Your task to perform on an android device: Clear the cart on ebay. Add "logitech g903" to the cart on ebay Image 0: 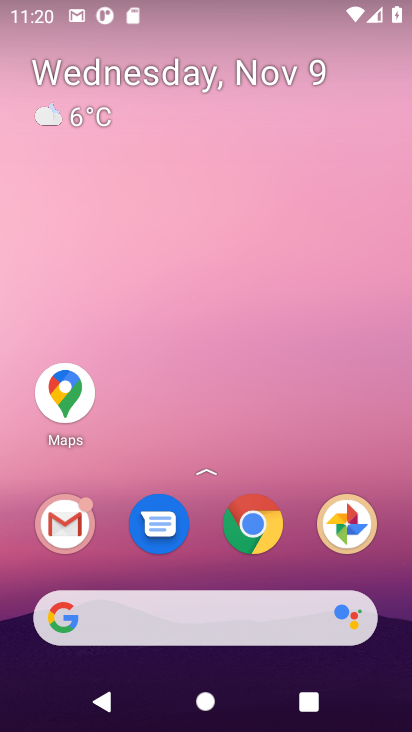
Step 0: click (214, 605)
Your task to perform on an android device: Clear the cart on ebay. Add "logitech g903" to the cart on ebay Image 1: 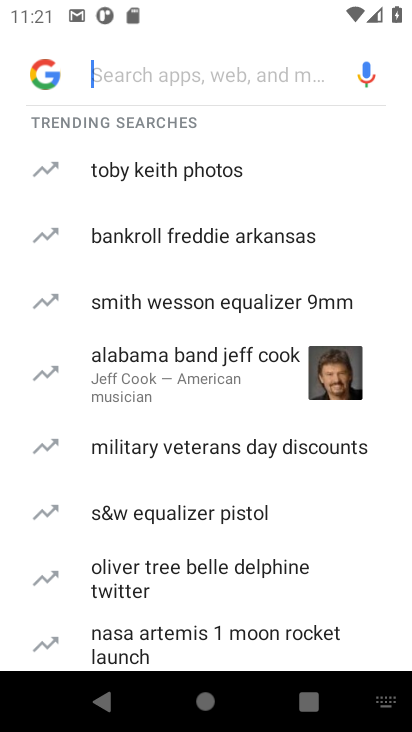
Step 1: type "logitech g903 on ebay"
Your task to perform on an android device: Clear the cart on ebay. Add "logitech g903" to the cart on ebay Image 2: 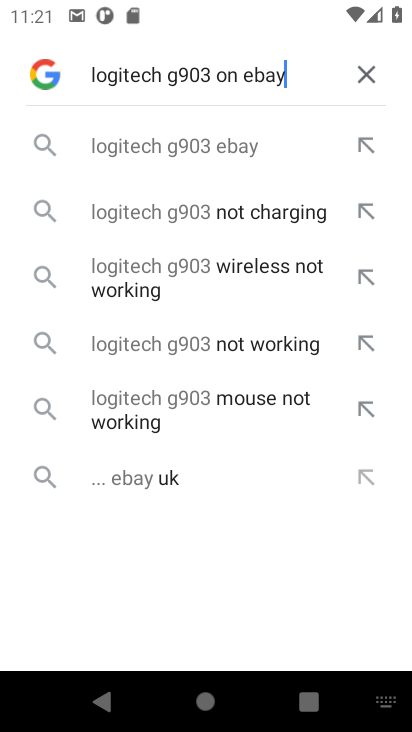
Step 2: click (201, 137)
Your task to perform on an android device: Clear the cart on ebay. Add "logitech g903" to the cart on ebay Image 3: 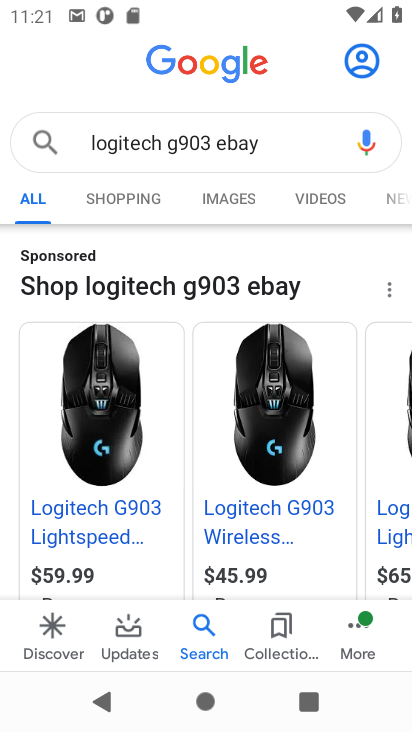
Step 3: drag from (114, 512) to (172, 311)
Your task to perform on an android device: Clear the cart on ebay. Add "logitech g903" to the cart on ebay Image 4: 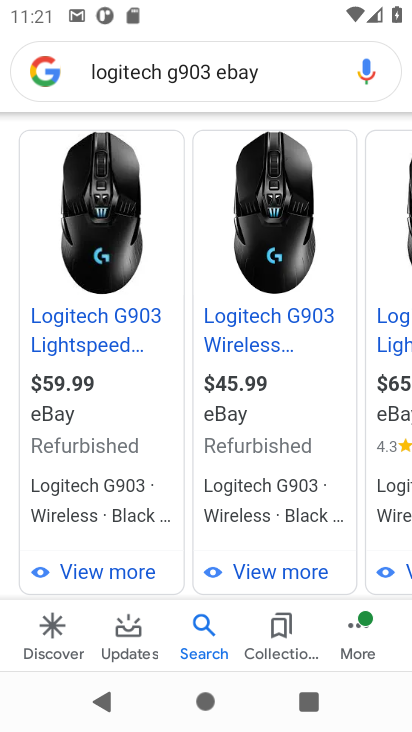
Step 4: click (100, 311)
Your task to perform on an android device: Clear the cart on ebay. Add "logitech g903" to the cart on ebay Image 5: 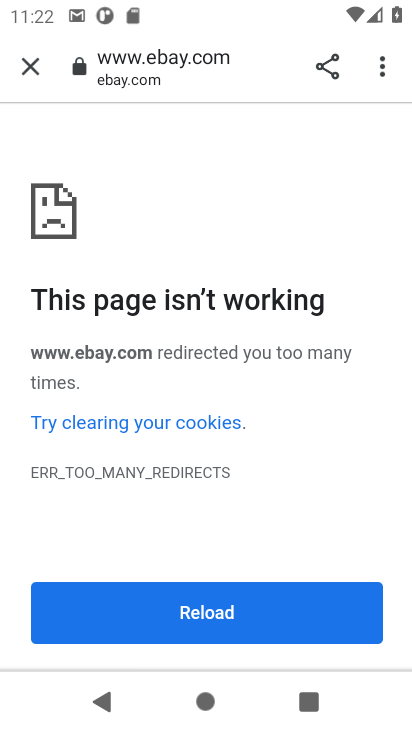
Step 5: task complete